Your task to perform on an android device: Check the news Image 0: 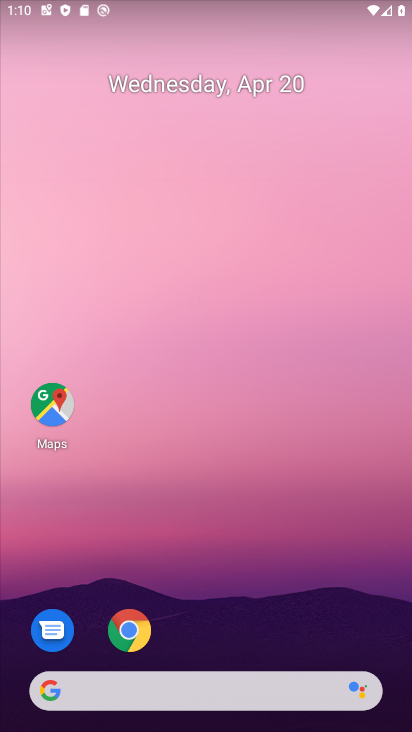
Step 0: drag from (370, 593) to (356, 86)
Your task to perform on an android device: Check the news Image 1: 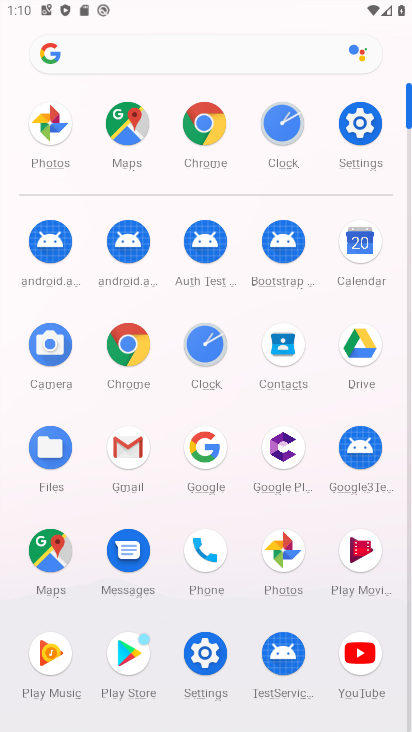
Step 1: click (207, 126)
Your task to perform on an android device: Check the news Image 2: 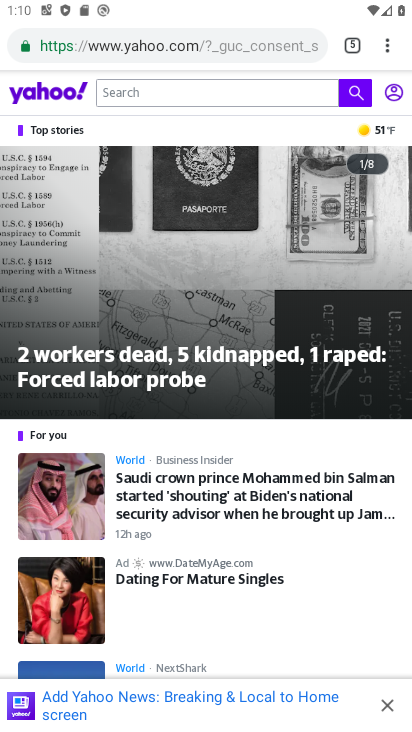
Step 2: click (356, 49)
Your task to perform on an android device: Check the news Image 3: 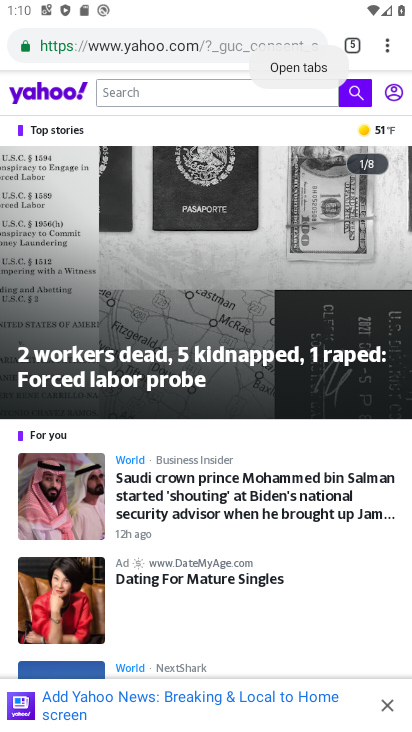
Step 3: click (355, 50)
Your task to perform on an android device: Check the news Image 4: 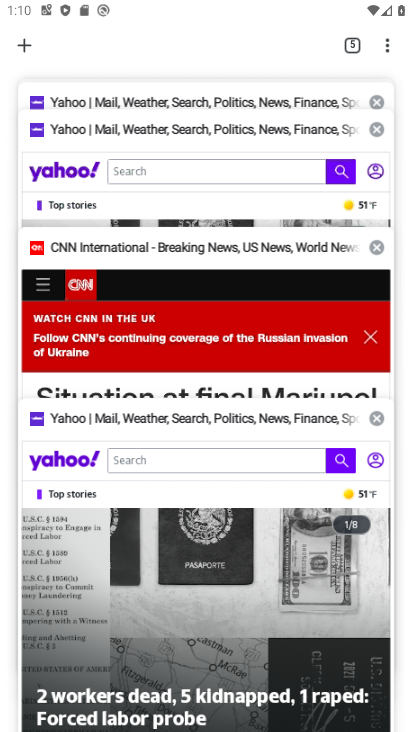
Step 4: click (28, 45)
Your task to perform on an android device: Check the news Image 5: 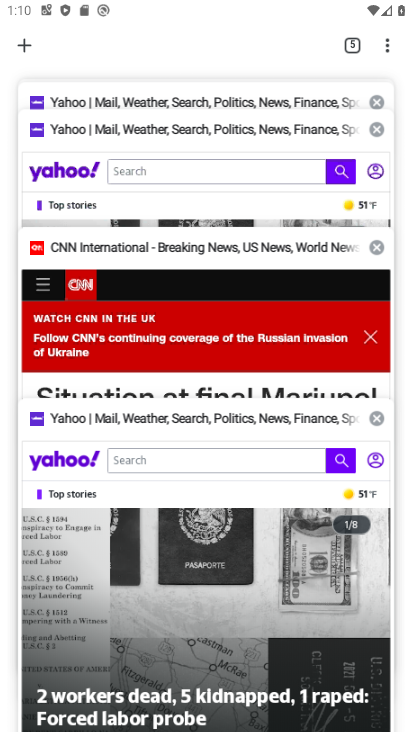
Step 5: click (22, 47)
Your task to perform on an android device: Check the news Image 6: 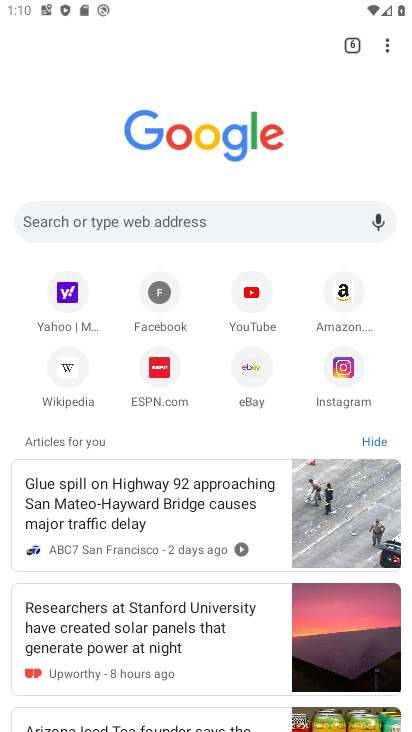
Step 6: click (117, 213)
Your task to perform on an android device: Check the news Image 7: 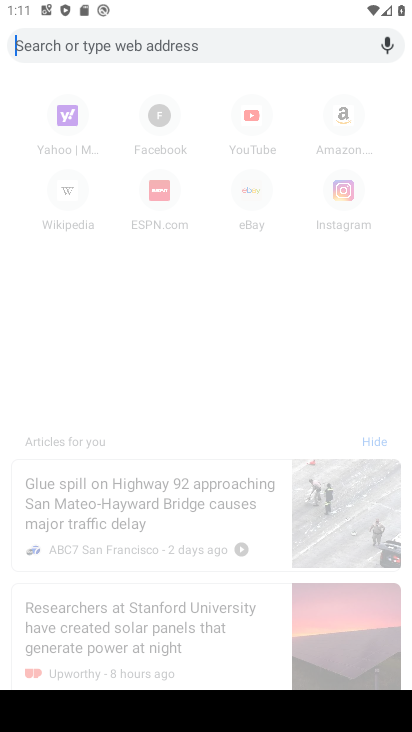
Step 7: type "the news"
Your task to perform on an android device: Check the news Image 8: 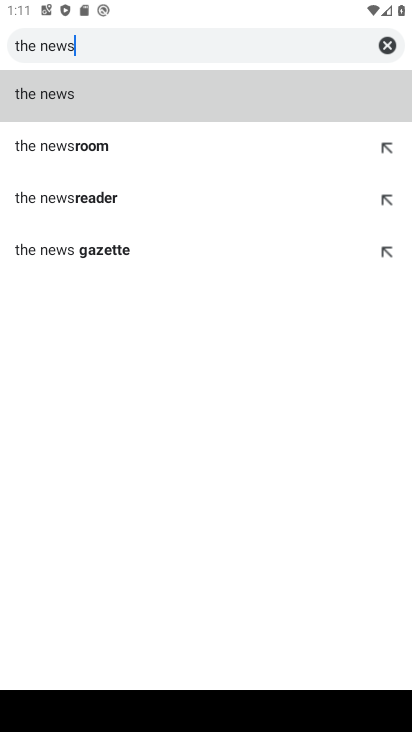
Step 8: click (161, 108)
Your task to perform on an android device: Check the news Image 9: 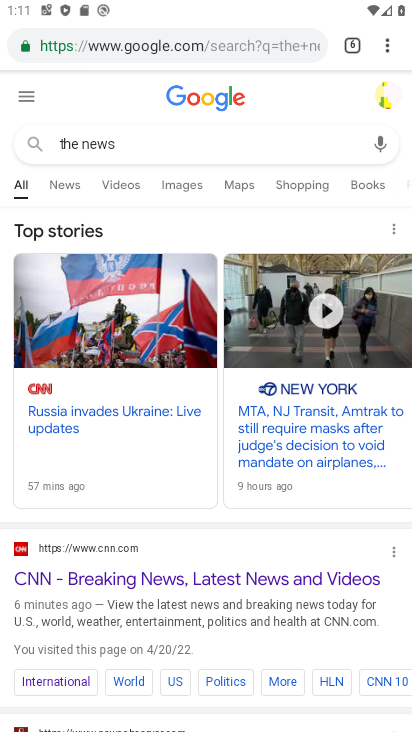
Step 9: click (163, 580)
Your task to perform on an android device: Check the news Image 10: 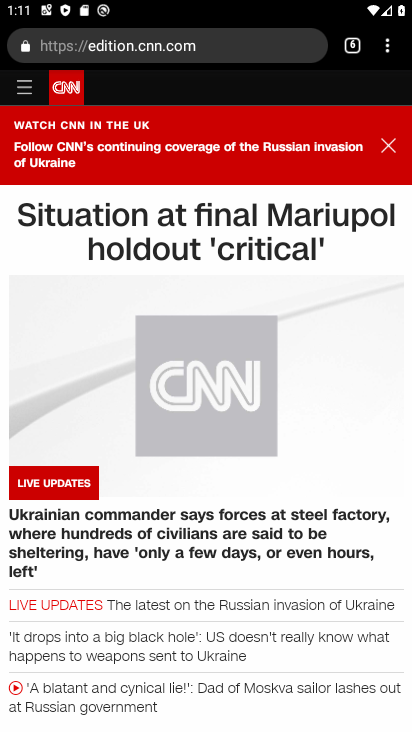
Step 10: task complete